Your task to perform on an android device: create a new album in the google photos Image 0: 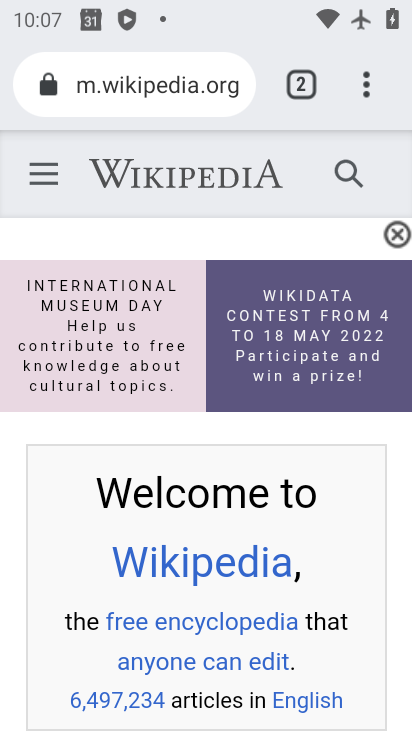
Step 0: press home button
Your task to perform on an android device: create a new album in the google photos Image 1: 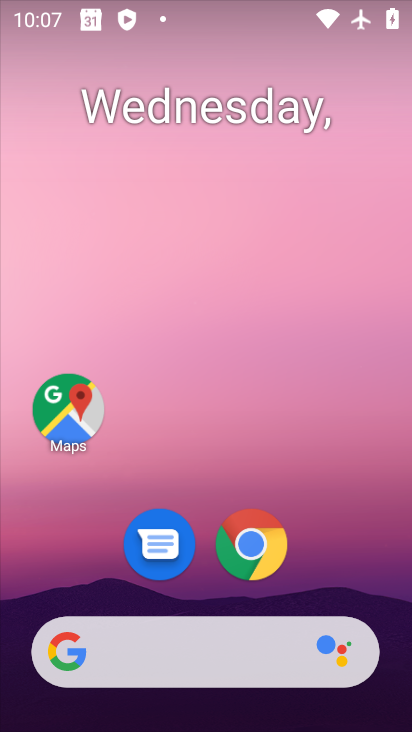
Step 1: drag from (349, 576) to (289, 103)
Your task to perform on an android device: create a new album in the google photos Image 2: 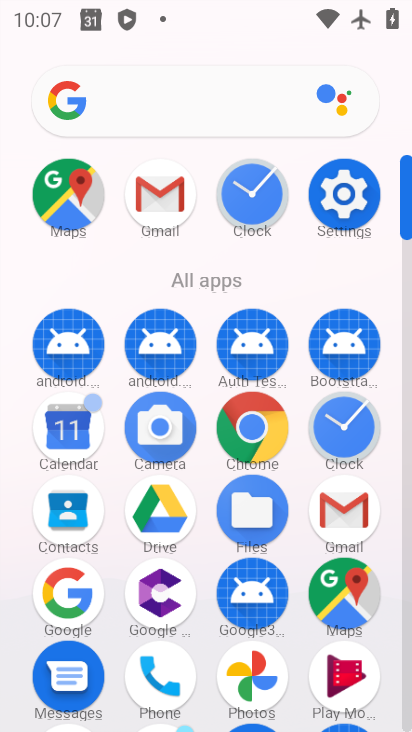
Step 2: click (241, 680)
Your task to perform on an android device: create a new album in the google photos Image 3: 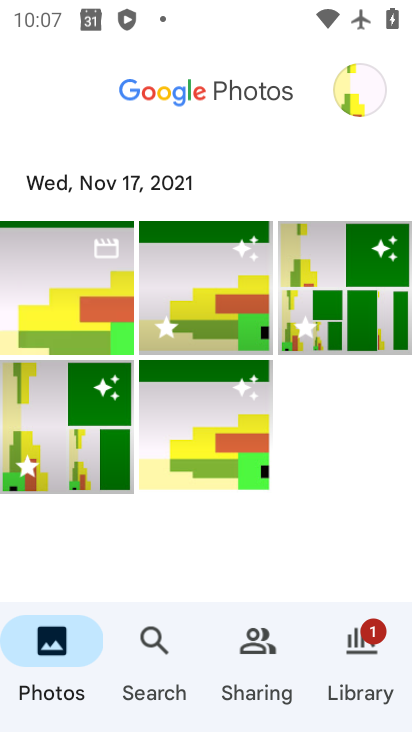
Step 3: click (361, 652)
Your task to perform on an android device: create a new album in the google photos Image 4: 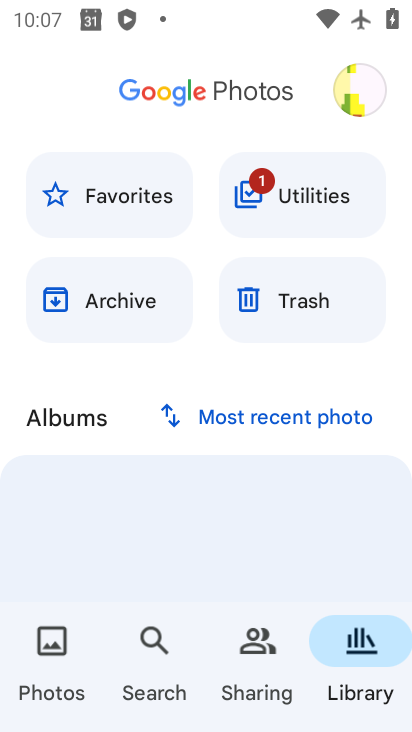
Step 4: drag from (188, 503) to (220, 201)
Your task to perform on an android device: create a new album in the google photos Image 5: 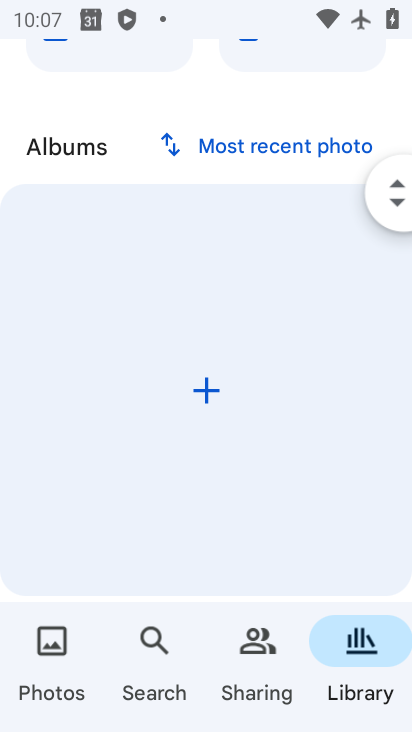
Step 5: click (201, 396)
Your task to perform on an android device: create a new album in the google photos Image 6: 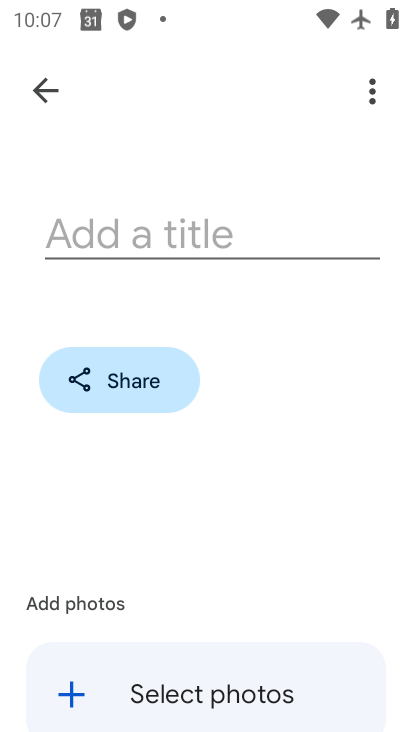
Step 6: click (158, 235)
Your task to perform on an android device: create a new album in the google photos Image 7: 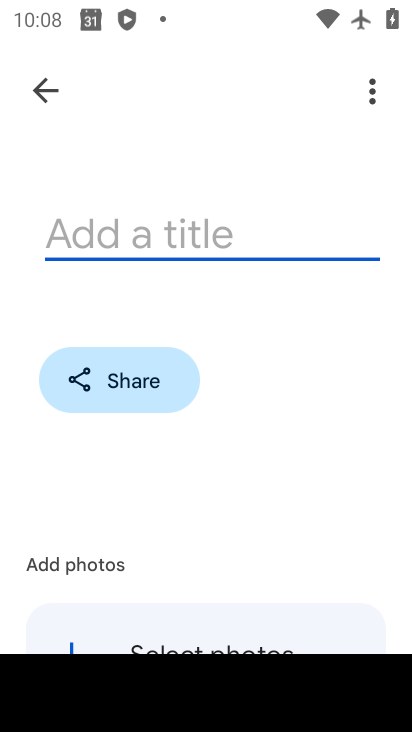
Step 7: type "hduwiksowpqkamznxjdeuyrthfbv"
Your task to perform on an android device: create a new album in the google photos Image 8: 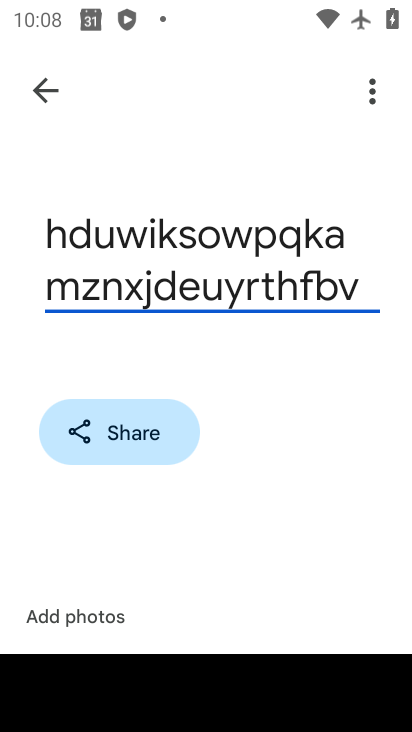
Step 8: drag from (169, 589) to (224, 99)
Your task to perform on an android device: create a new album in the google photos Image 9: 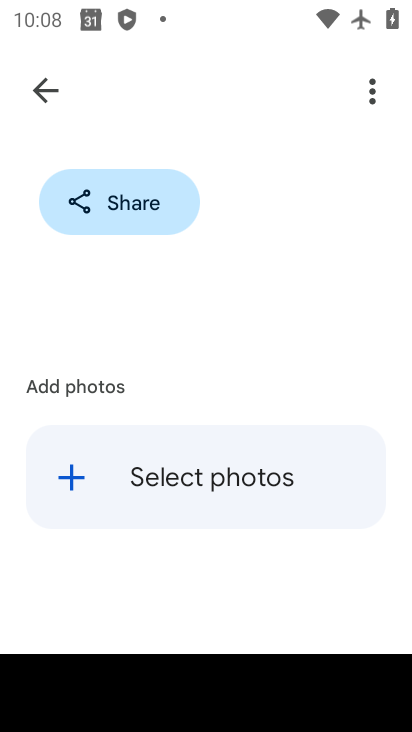
Step 9: click (62, 485)
Your task to perform on an android device: create a new album in the google photos Image 10: 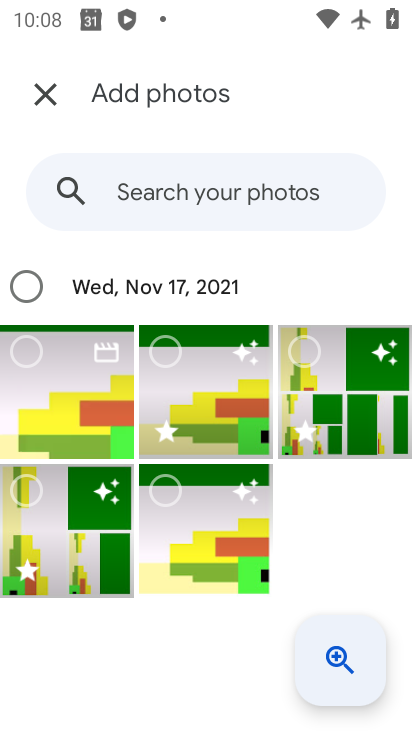
Step 10: click (78, 389)
Your task to perform on an android device: create a new album in the google photos Image 11: 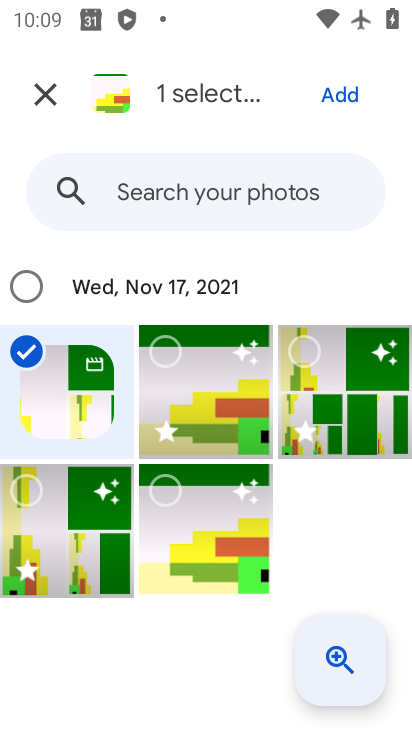
Step 11: click (352, 98)
Your task to perform on an android device: create a new album in the google photos Image 12: 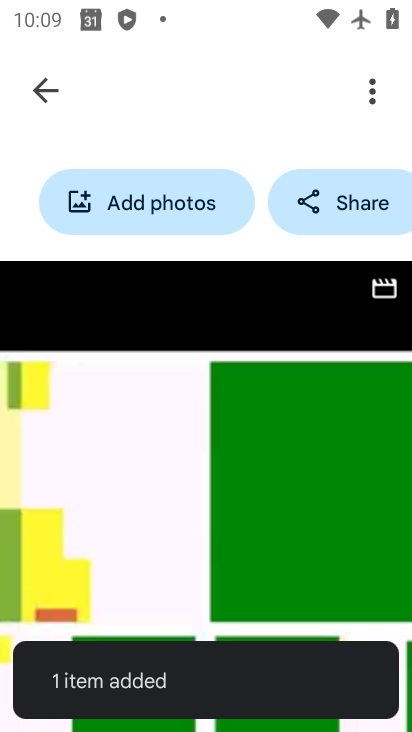
Step 12: task complete